Your task to perform on an android device: Go to battery settings Image 0: 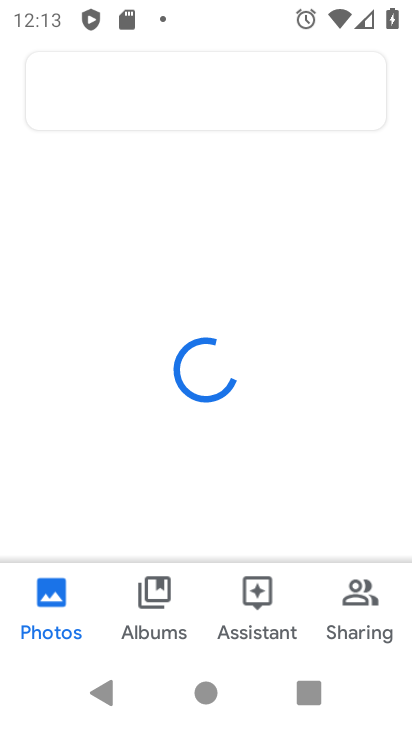
Step 0: press home button
Your task to perform on an android device: Go to battery settings Image 1: 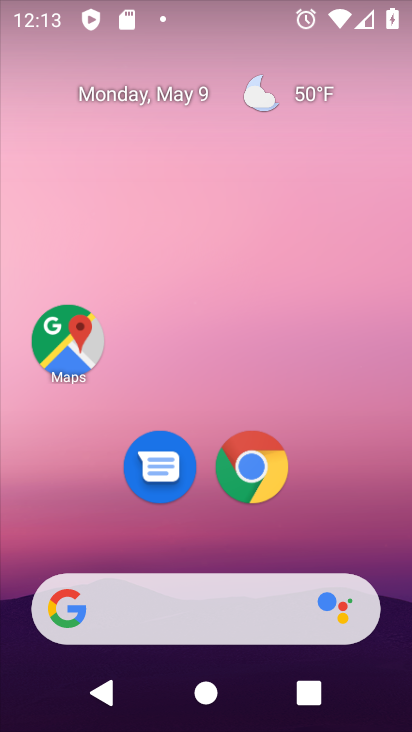
Step 1: drag from (208, 550) to (252, 72)
Your task to perform on an android device: Go to battery settings Image 2: 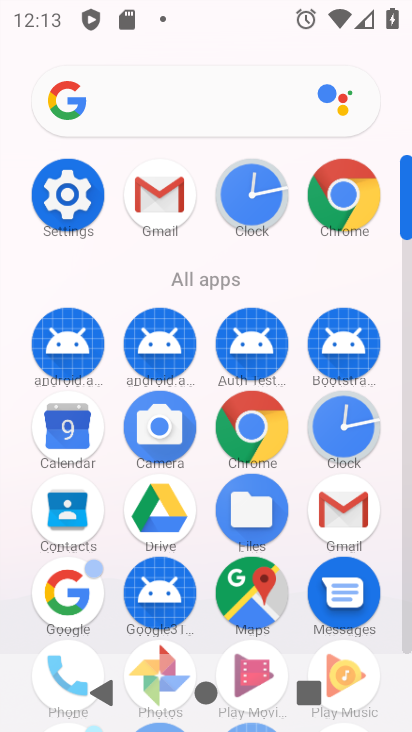
Step 2: click (64, 186)
Your task to perform on an android device: Go to battery settings Image 3: 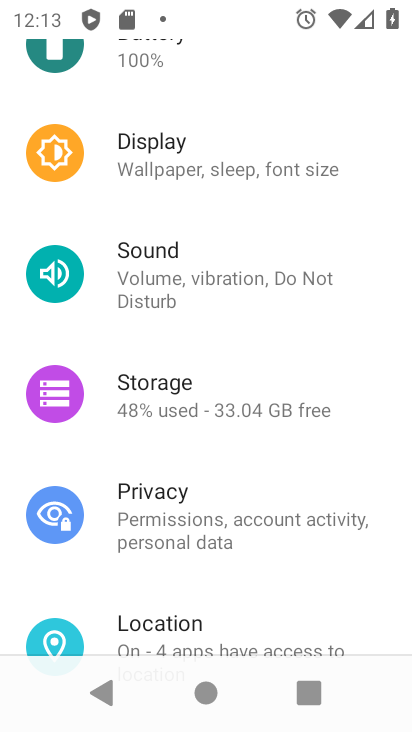
Step 3: click (167, 55)
Your task to perform on an android device: Go to battery settings Image 4: 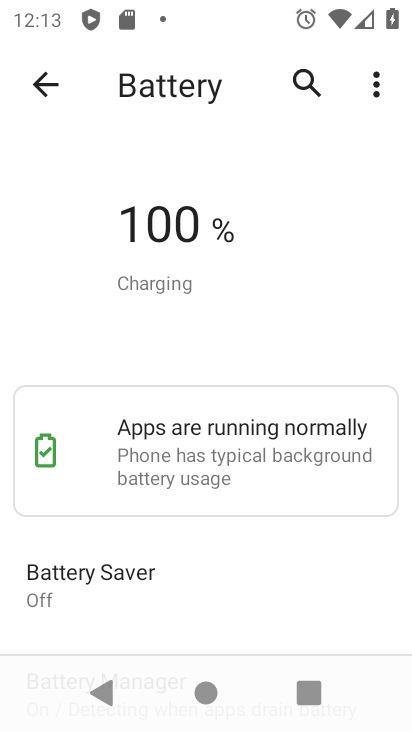
Step 4: click (375, 79)
Your task to perform on an android device: Go to battery settings Image 5: 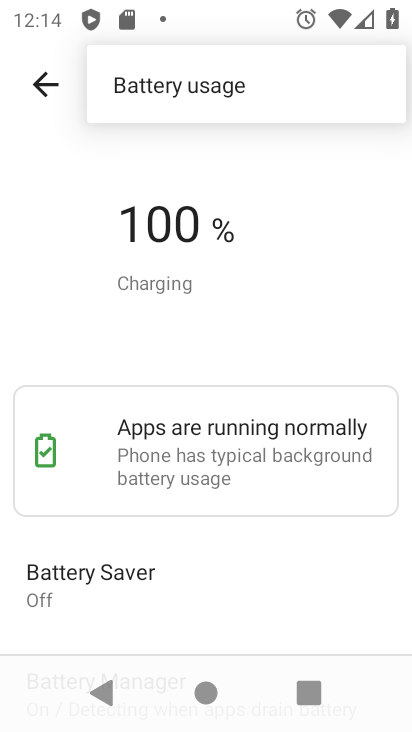
Step 5: click (207, 381)
Your task to perform on an android device: Go to battery settings Image 6: 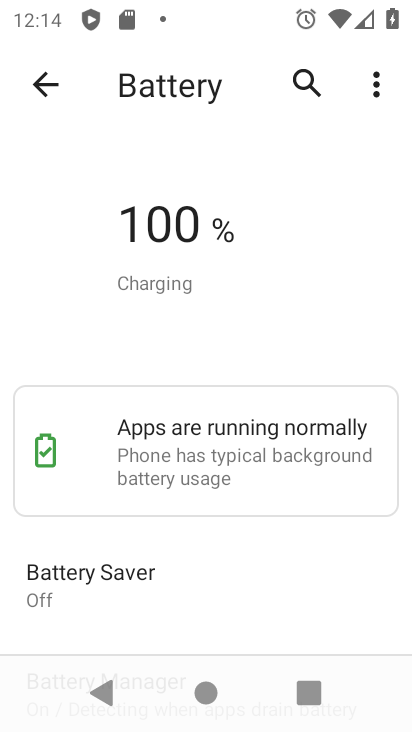
Step 6: task complete